Your task to perform on an android device: See recent photos Image 0: 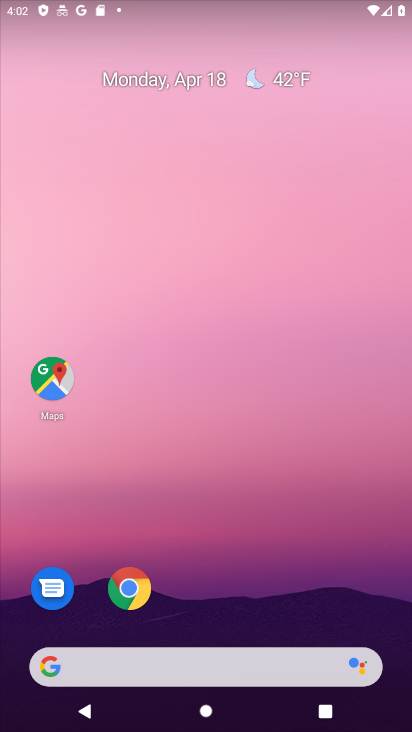
Step 0: drag from (258, 583) to (256, 147)
Your task to perform on an android device: See recent photos Image 1: 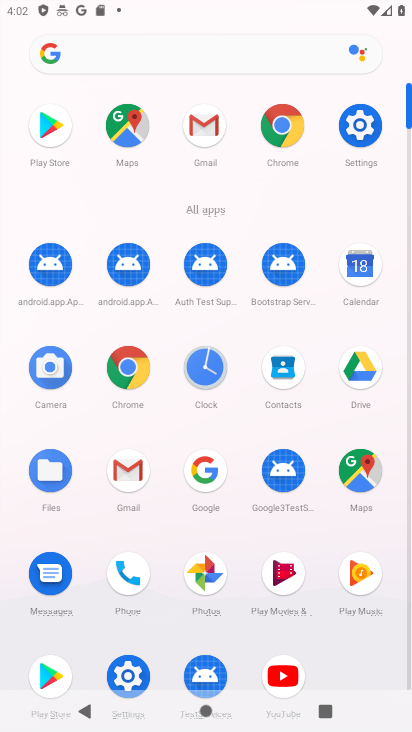
Step 1: click (209, 570)
Your task to perform on an android device: See recent photos Image 2: 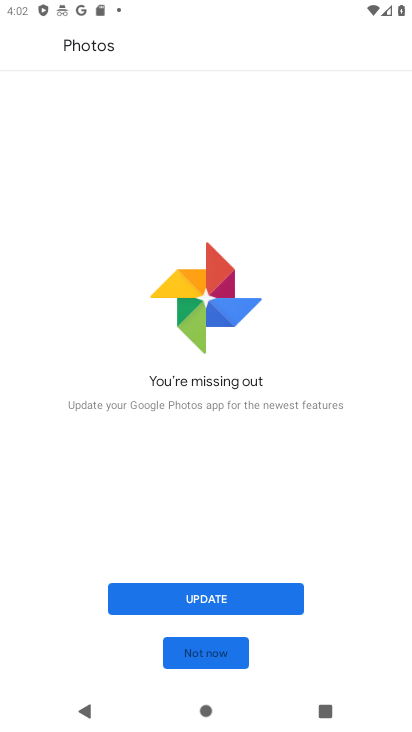
Step 2: click (194, 602)
Your task to perform on an android device: See recent photos Image 3: 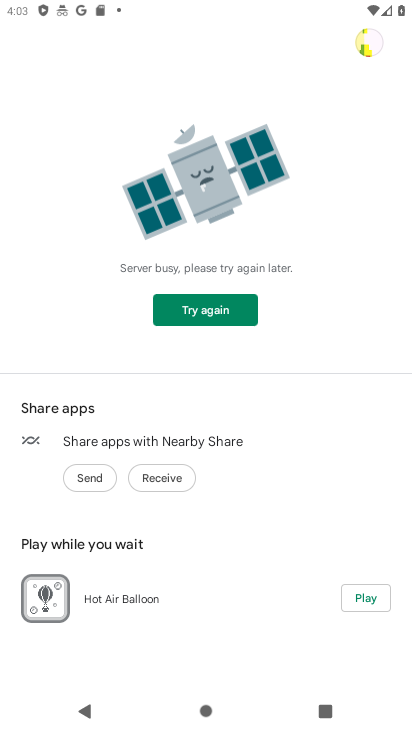
Step 3: click (216, 310)
Your task to perform on an android device: See recent photos Image 4: 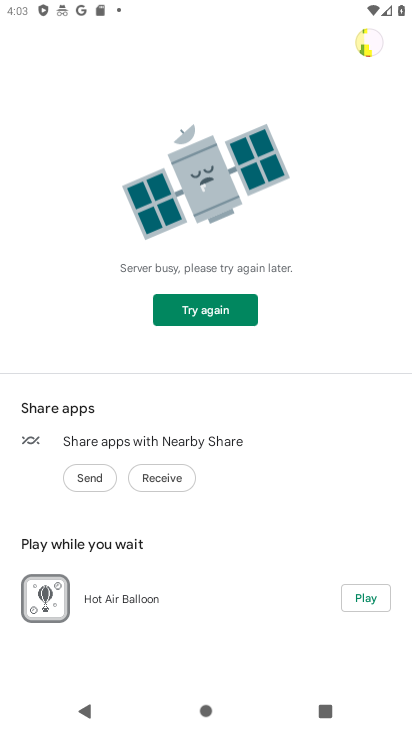
Step 4: task complete